Your task to perform on an android device: Do I have any events this weekend? Image 0: 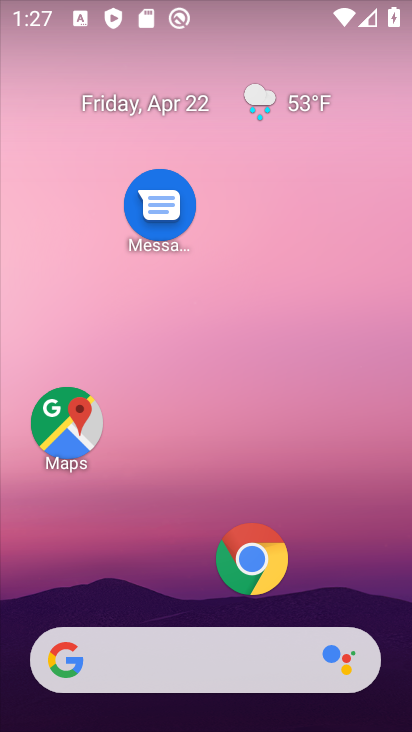
Step 0: drag from (209, 521) to (245, 322)
Your task to perform on an android device: Do I have any events this weekend? Image 1: 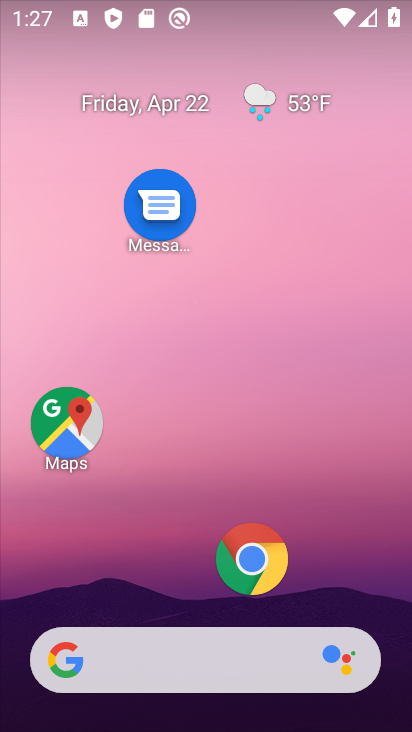
Step 1: drag from (250, 468) to (292, 326)
Your task to perform on an android device: Do I have any events this weekend? Image 2: 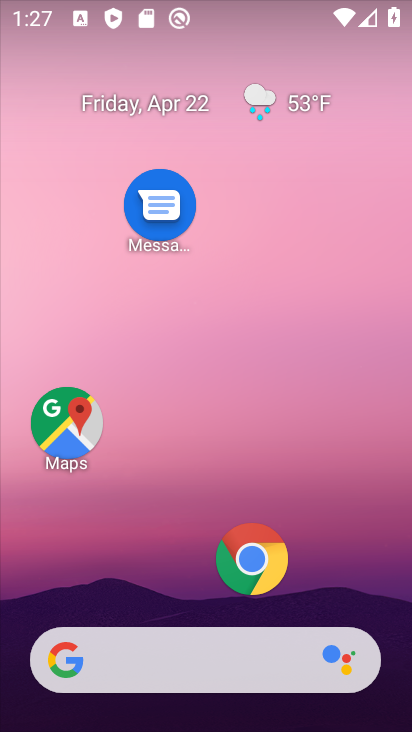
Step 2: drag from (272, 364) to (345, 122)
Your task to perform on an android device: Do I have any events this weekend? Image 3: 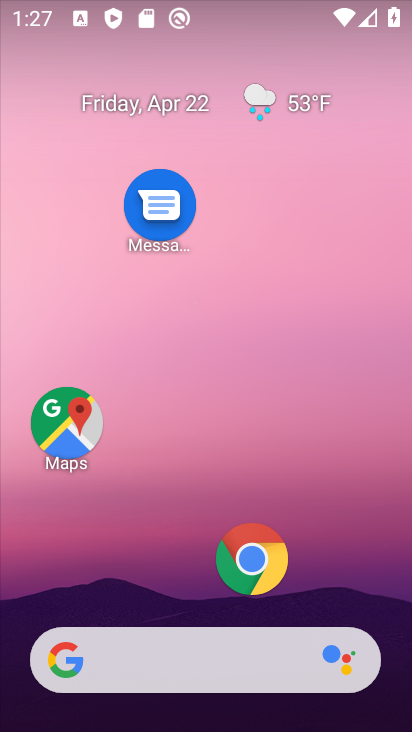
Step 3: drag from (236, 500) to (335, 115)
Your task to perform on an android device: Do I have any events this weekend? Image 4: 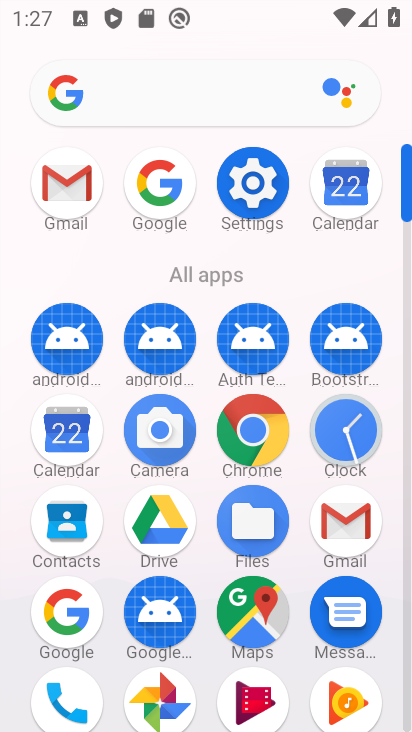
Step 4: click (346, 195)
Your task to perform on an android device: Do I have any events this weekend? Image 5: 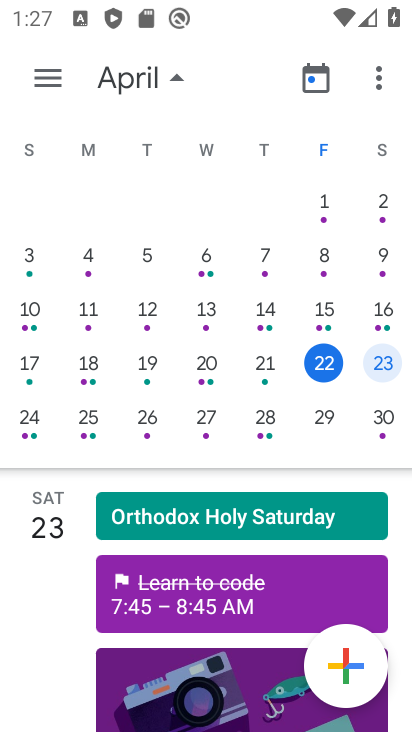
Step 5: click (48, 79)
Your task to perform on an android device: Do I have any events this weekend? Image 6: 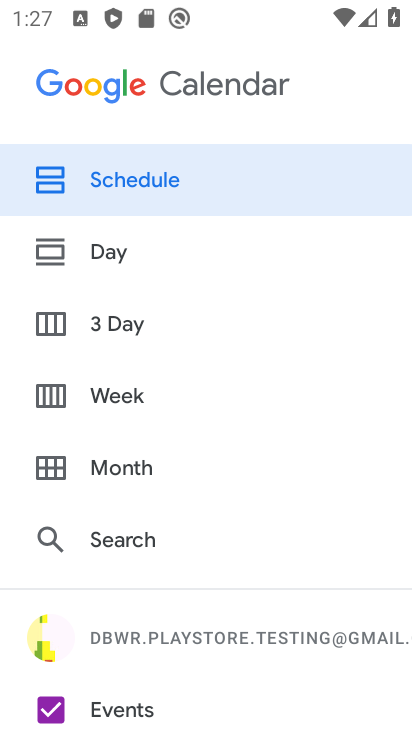
Step 6: click (102, 184)
Your task to perform on an android device: Do I have any events this weekend? Image 7: 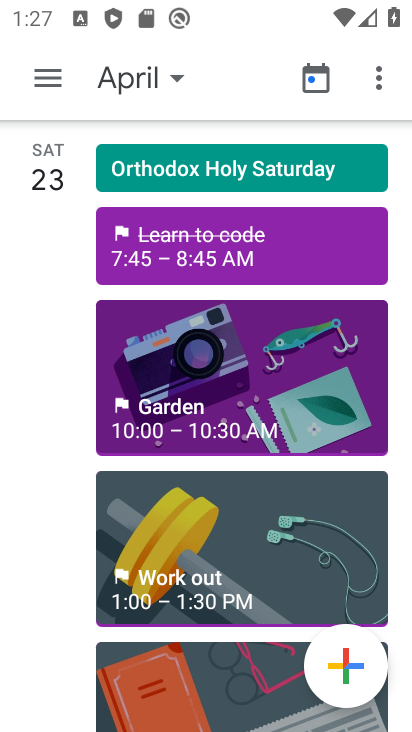
Step 7: task complete